Your task to perform on an android device: Turn off the flashlight Image 0: 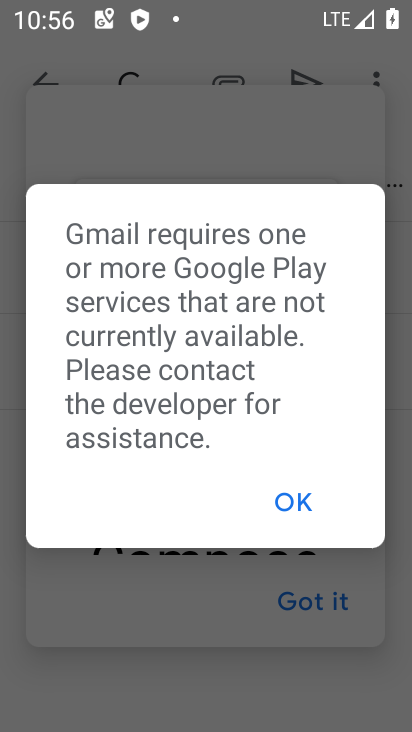
Step 0: press home button
Your task to perform on an android device: Turn off the flashlight Image 1: 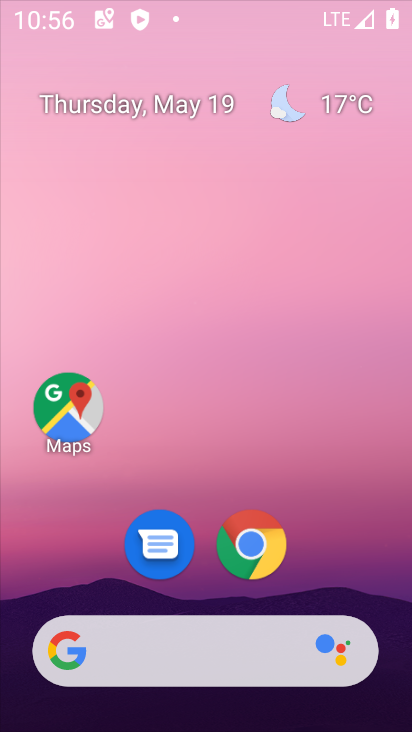
Step 1: task complete